Your task to perform on an android device: Search for bose quietcomfort 35 on costco, select the first entry, add it to the cart, then select checkout. Image 0: 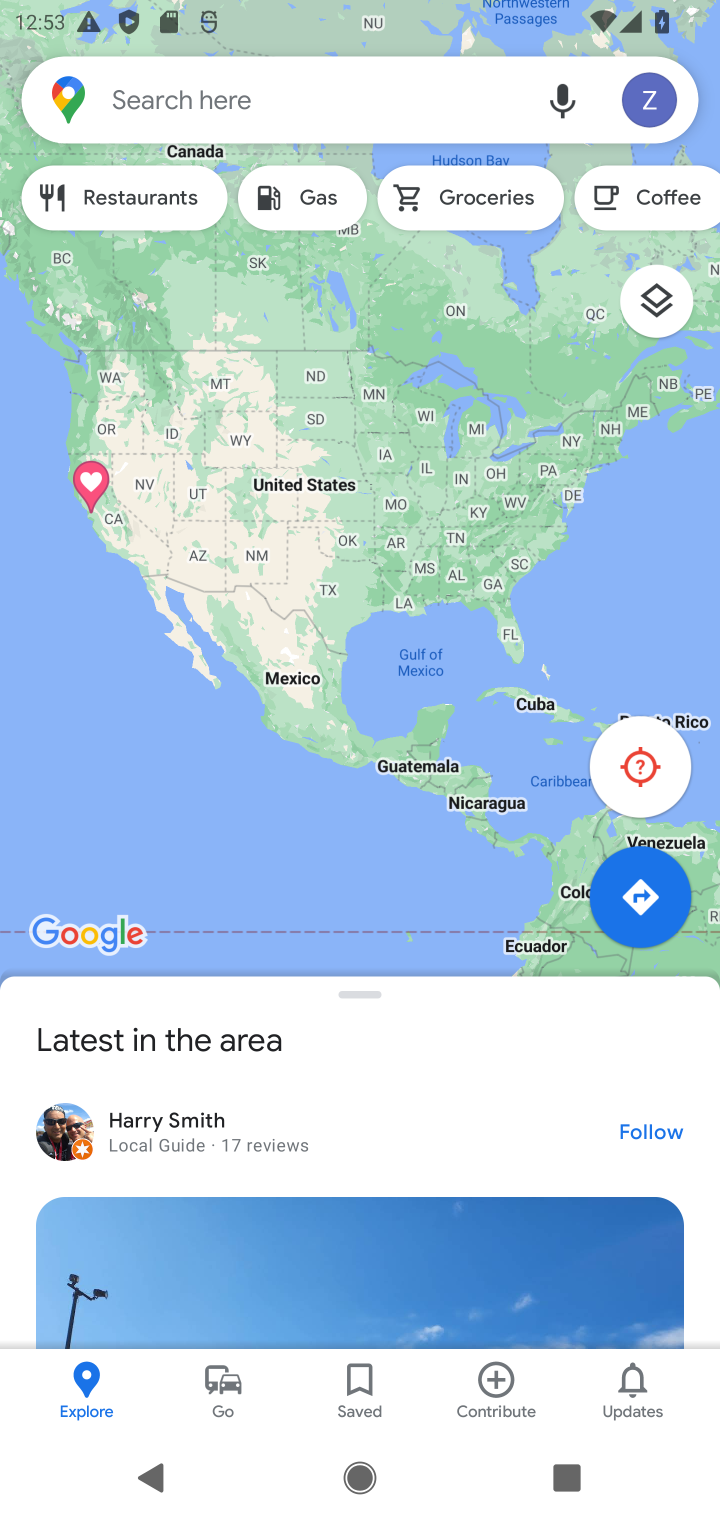
Step 0: press home button
Your task to perform on an android device: Search for bose quietcomfort 35 on costco, select the first entry, add it to the cart, then select checkout. Image 1: 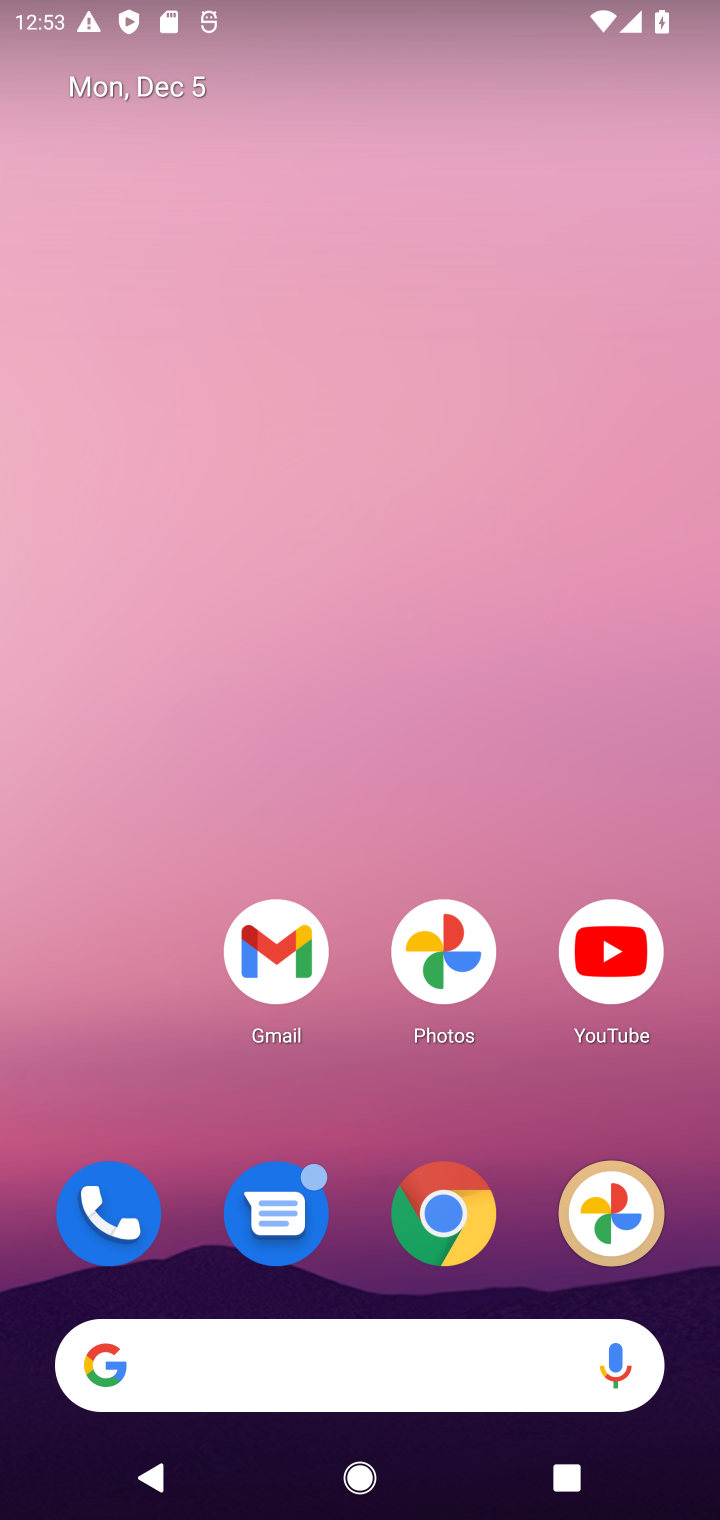
Step 1: click (450, 1226)
Your task to perform on an android device: Search for bose quietcomfort 35 on costco, select the first entry, add it to the cart, then select checkout. Image 2: 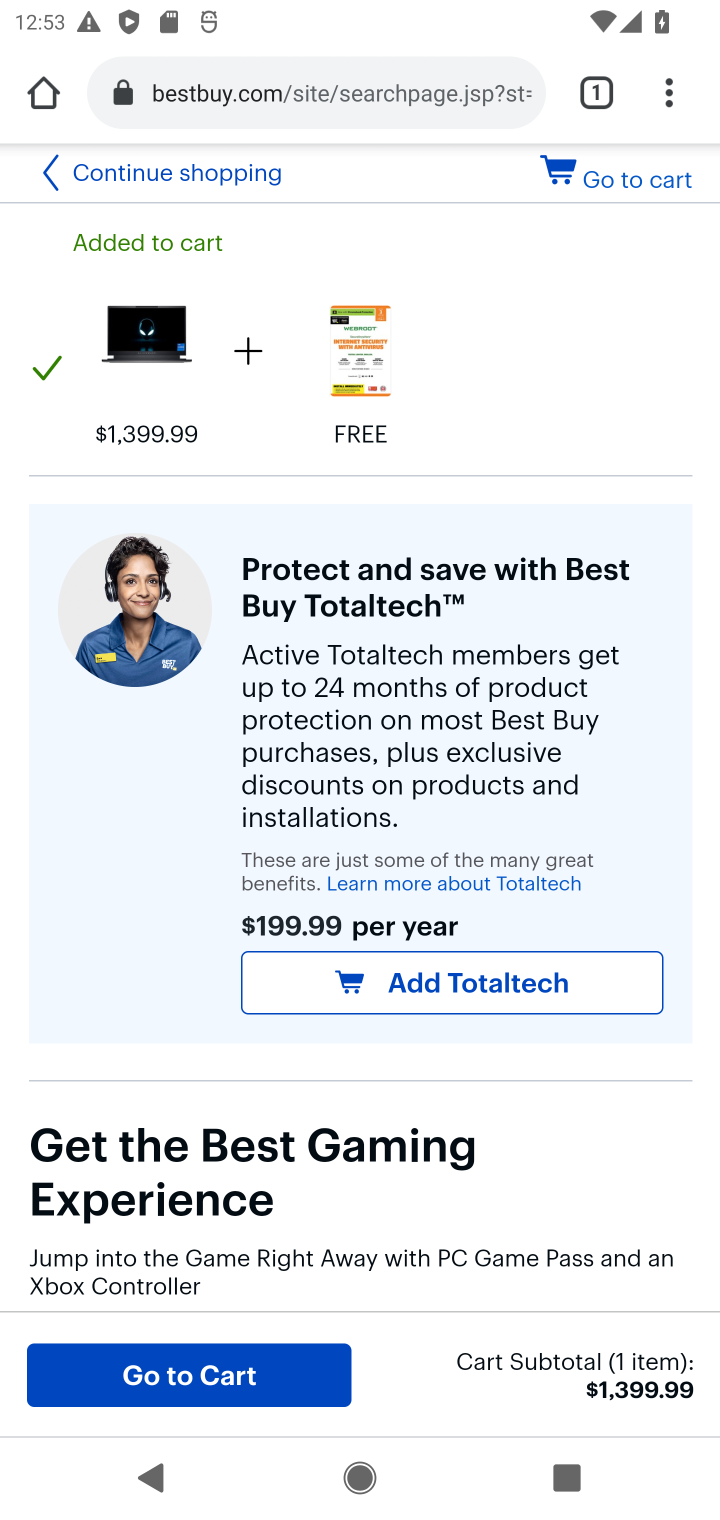
Step 2: click (230, 95)
Your task to perform on an android device: Search for bose quietcomfort 35 on costco, select the first entry, add it to the cart, then select checkout. Image 3: 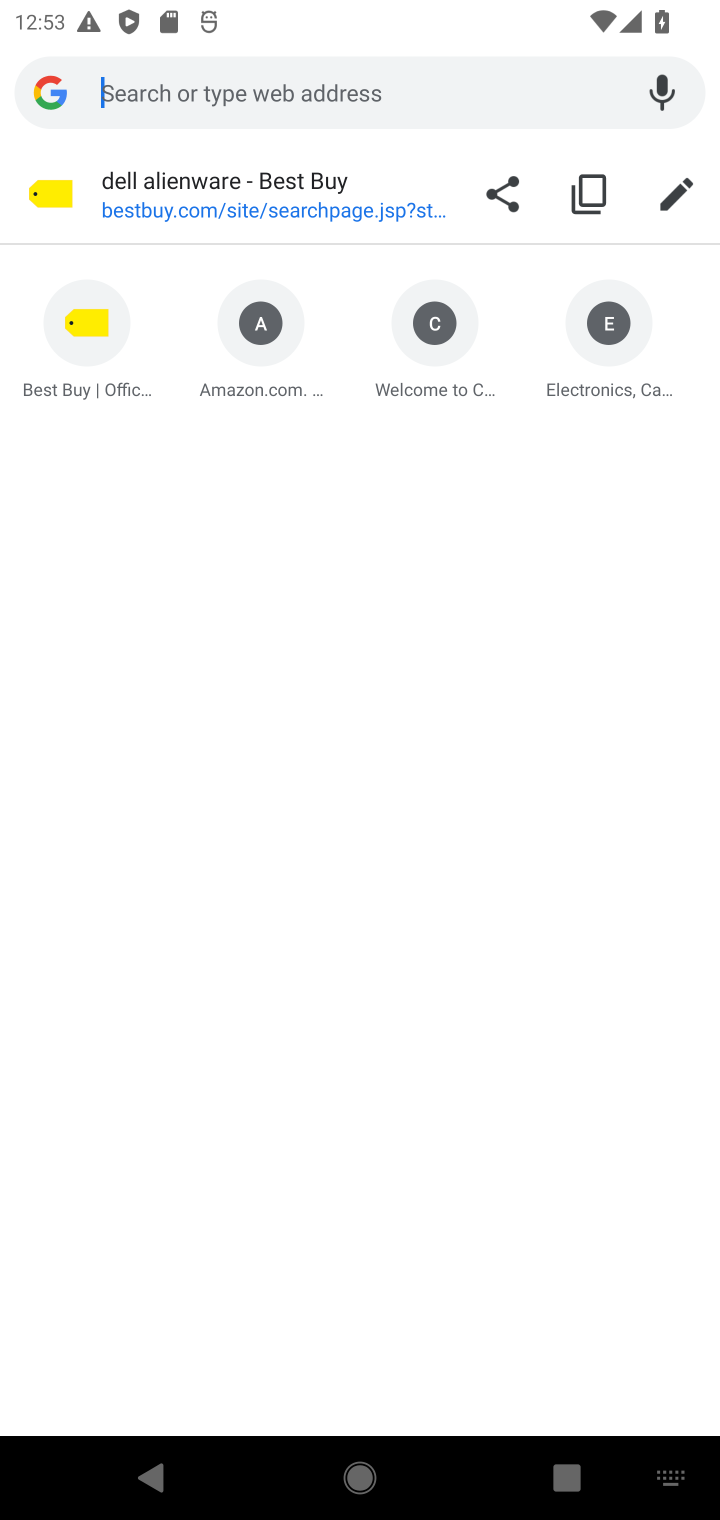
Step 3: type "costco.com"
Your task to perform on an android device: Search for bose quietcomfort 35 on costco, select the first entry, add it to the cart, then select checkout. Image 4: 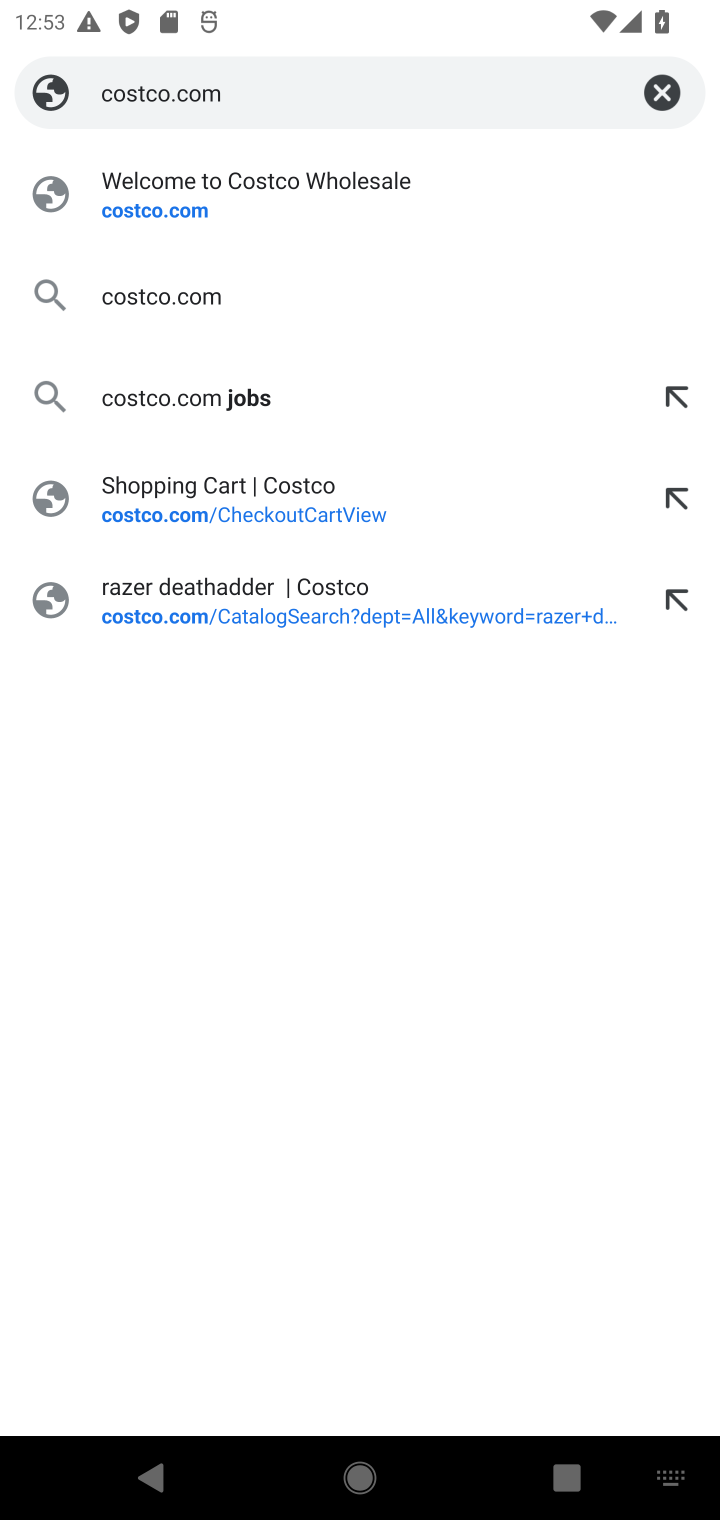
Step 4: click (176, 198)
Your task to perform on an android device: Search for bose quietcomfort 35 on costco, select the first entry, add it to the cart, then select checkout. Image 5: 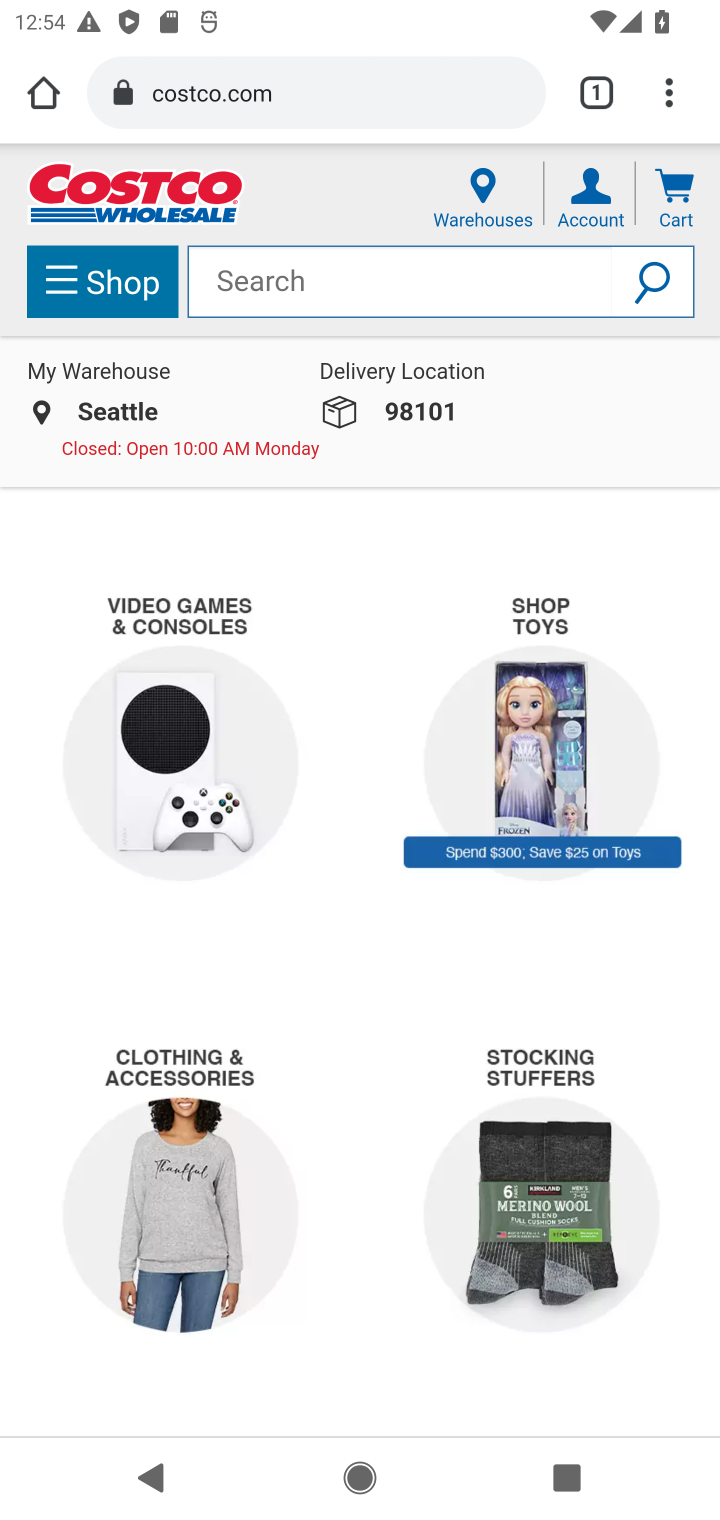
Step 5: click (323, 278)
Your task to perform on an android device: Search for bose quietcomfort 35 on costco, select the first entry, add it to the cart, then select checkout. Image 6: 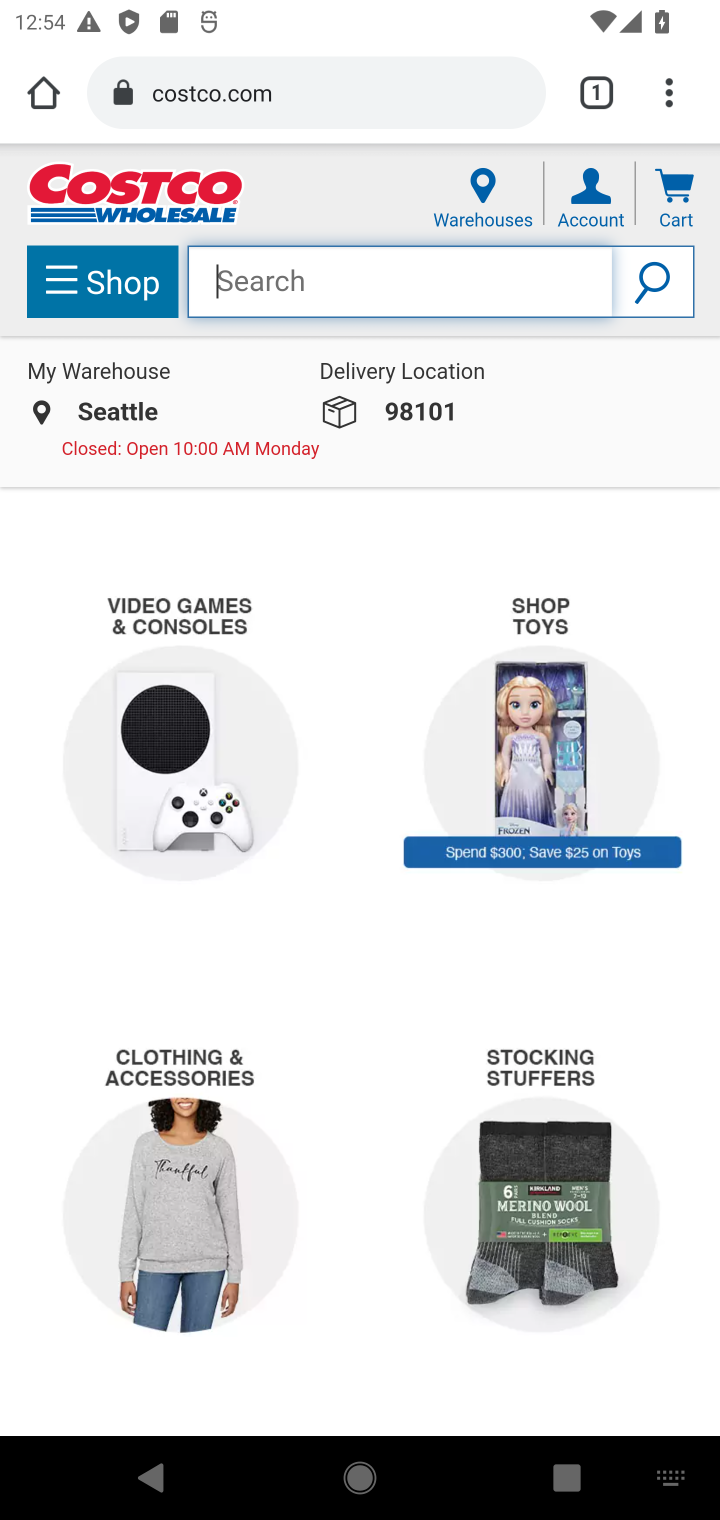
Step 6: type "bose quietcomfort 35"
Your task to perform on an android device: Search for bose quietcomfort 35 on costco, select the first entry, add it to the cart, then select checkout. Image 7: 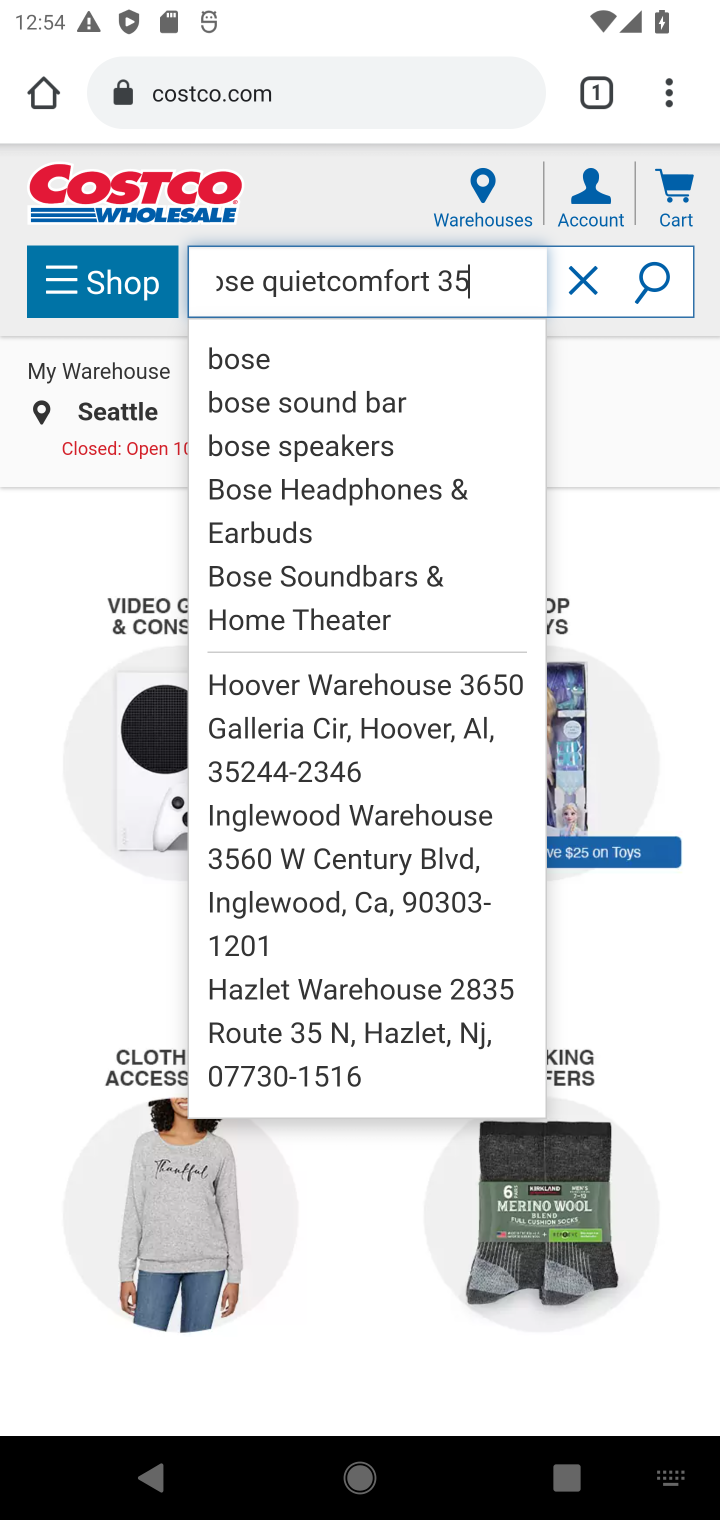
Step 7: click (664, 296)
Your task to perform on an android device: Search for bose quietcomfort 35 on costco, select the first entry, add it to the cart, then select checkout. Image 8: 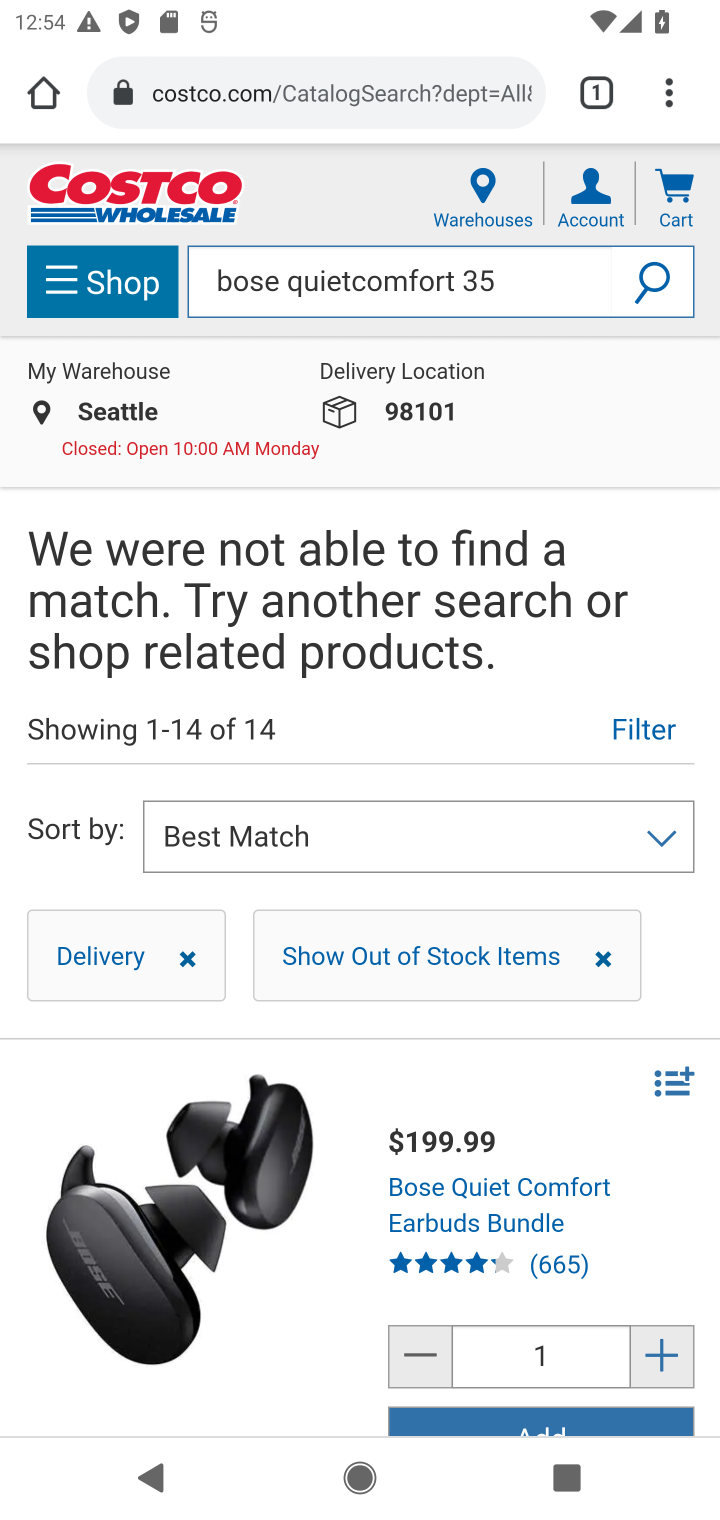
Step 8: task complete